Your task to perform on an android device: What is the news today? Image 0: 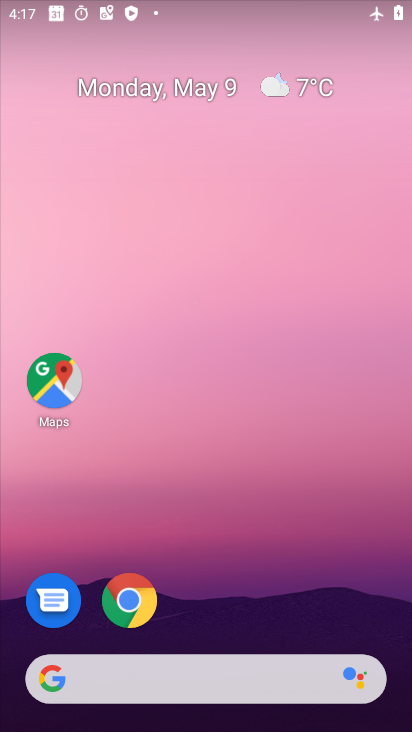
Step 0: drag from (285, 597) to (239, 167)
Your task to perform on an android device: What is the news today? Image 1: 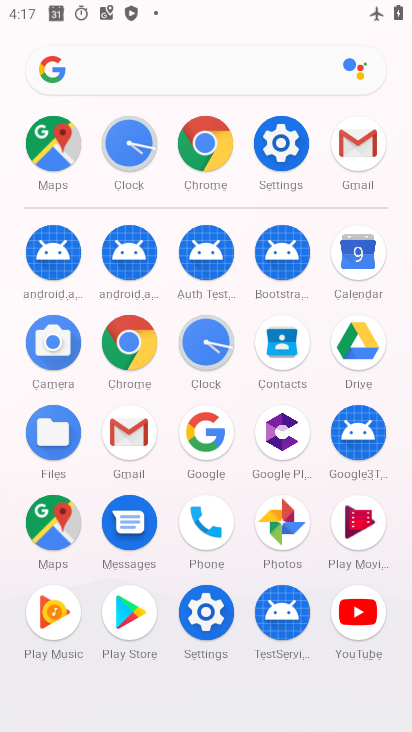
Step 1: click (133, 345)
Your task to perform on an android device: What is the news today? Image 2: 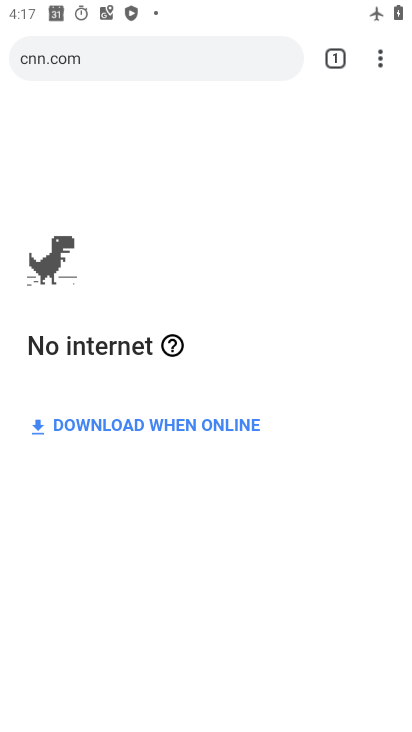
Step 2: click (243, 67)
Your task to perform on an android device: What is the news today? Image 3: 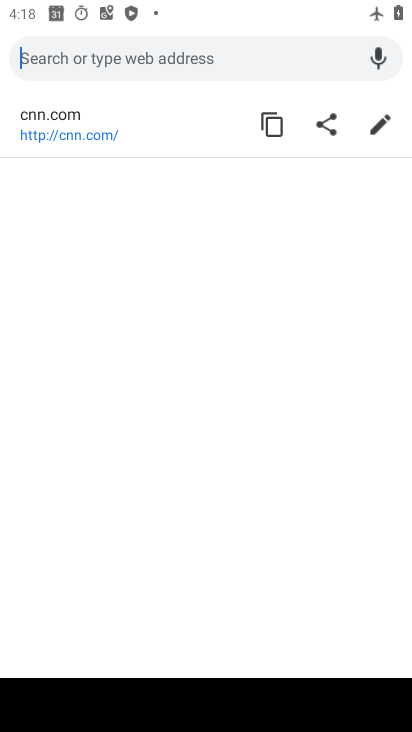
Step 3: type "news"
Your task to perform on an android device: What is the news today? Image 4: 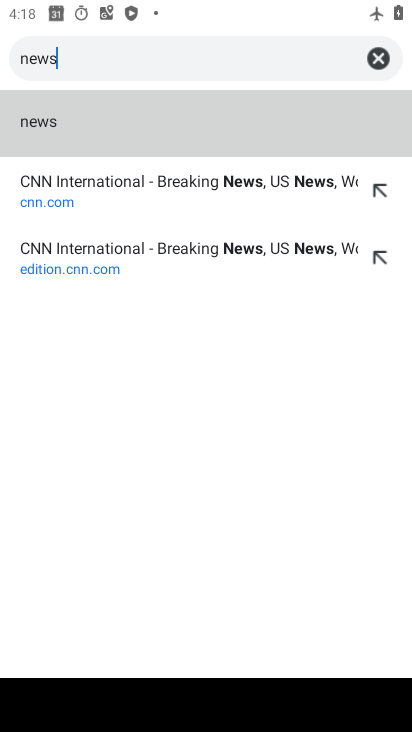
Step 4: click (26, 126)
Your task to perform on an android device: What is the news today? Image 5: 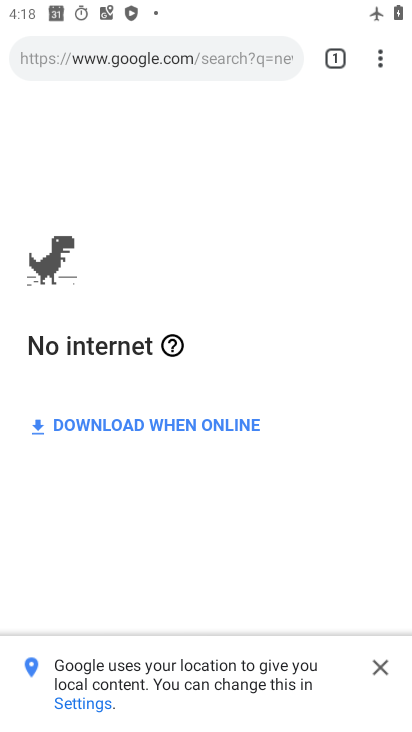
Step 5: task complete